Your task to perform on an android device: turn off translation in the chrome app Image 0: 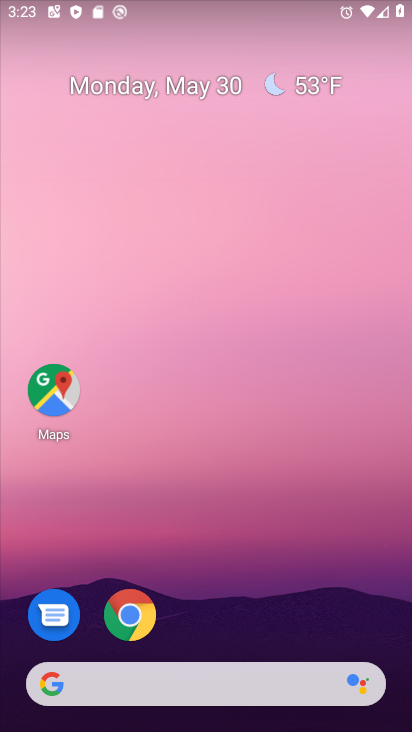
Step 0: click (144, 608)
Your task to perform on an android device: turn off translation in the chrome app Image 1: 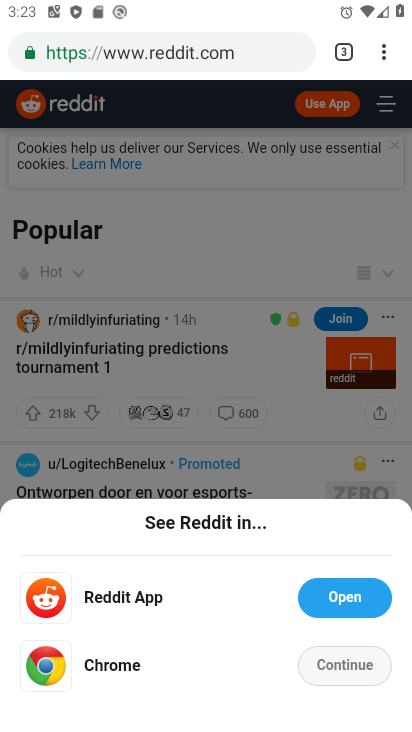
Step 1: click (319, 385)
Your task to perform on an android device: turn off translation in the chrome app Image 2: 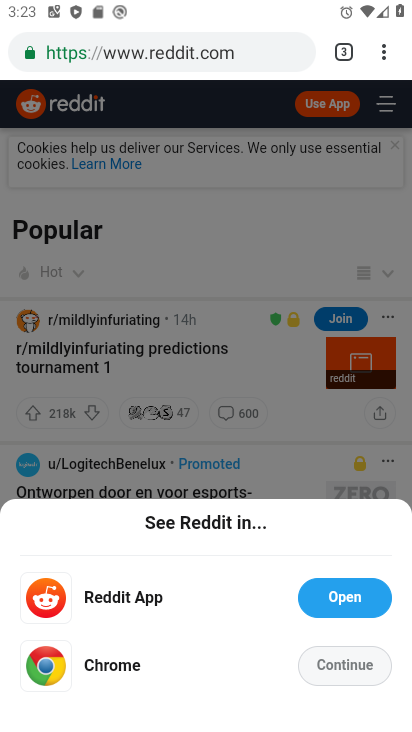
Step 2: click (387, 45)
Your task to perform on an android device: turn off translation in the chrome app Image 3: 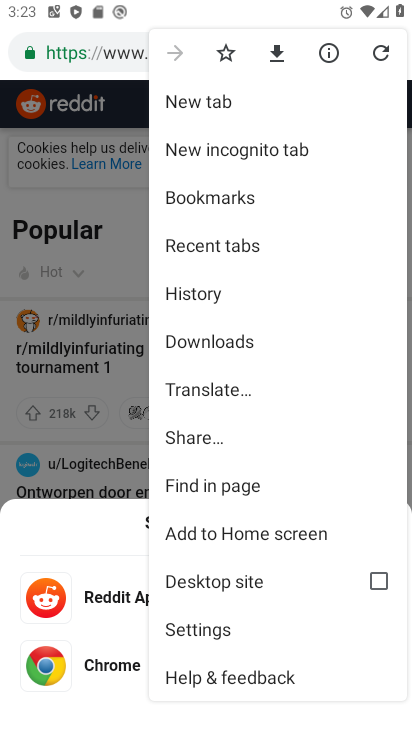
Step 3: click (229, 632)
Your task to perform on an android device: turn off translation in the chrome app Image 4: 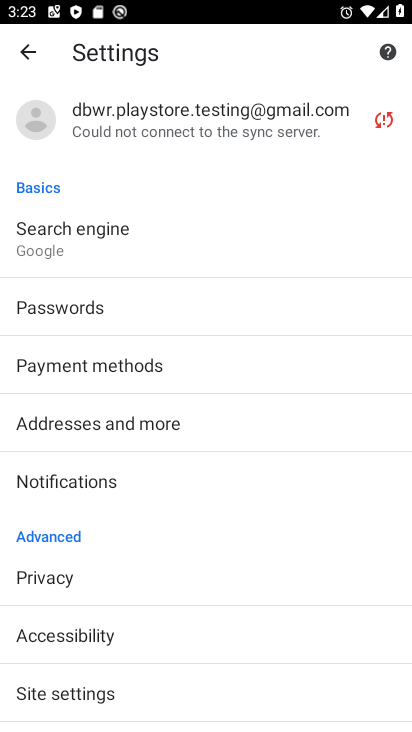
Step 4: drag from (136, 701) to (153, 584)
Your task to perform on an android device: turn off translation in the chrome app Image 5: 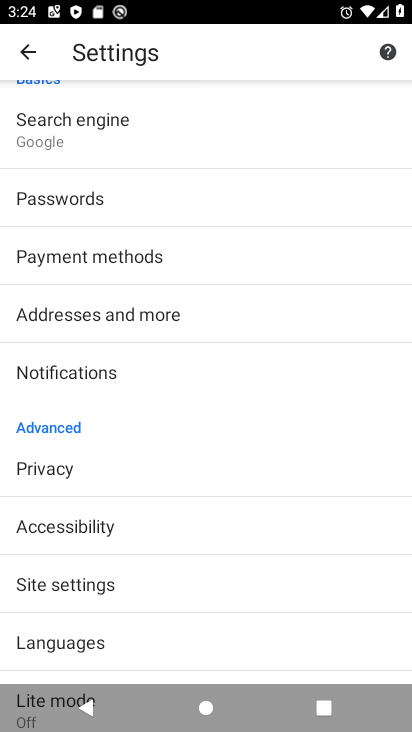
Step 5: click (92, 629)
Your task to perform on an android device: turn off translation in the chrome app Image 6: 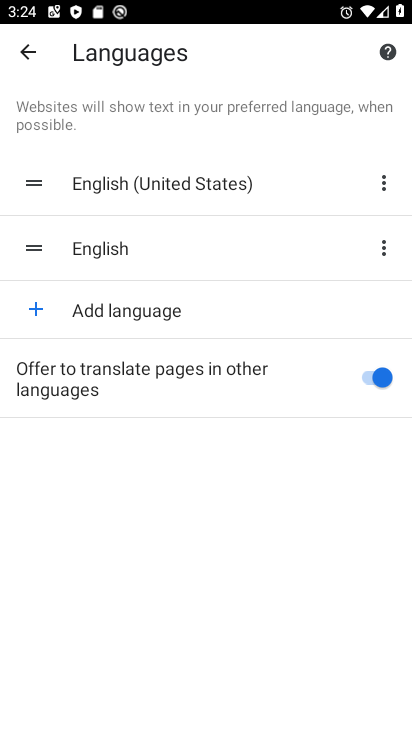
Step 6: click (377, 373)
Your task to perform on an android device: turn off translation in the chrome app Image 7: 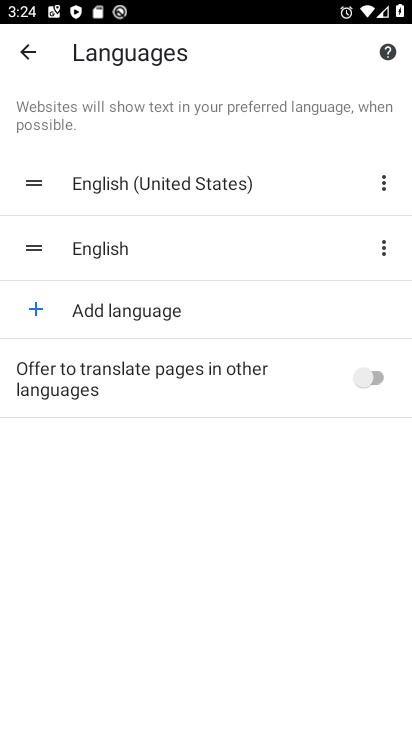
Step 7: task complete